Your task to perform on an android device: Go to CNN.com Image 0: 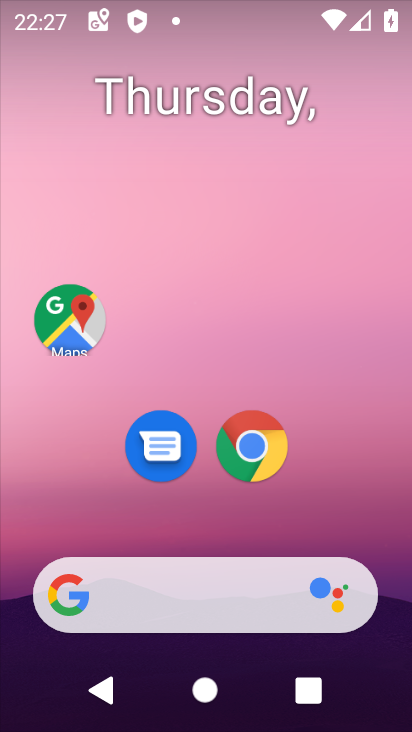
Step 0: click (244, 457)
Your task to perform on an android device: Go to CNN.com Image 1: 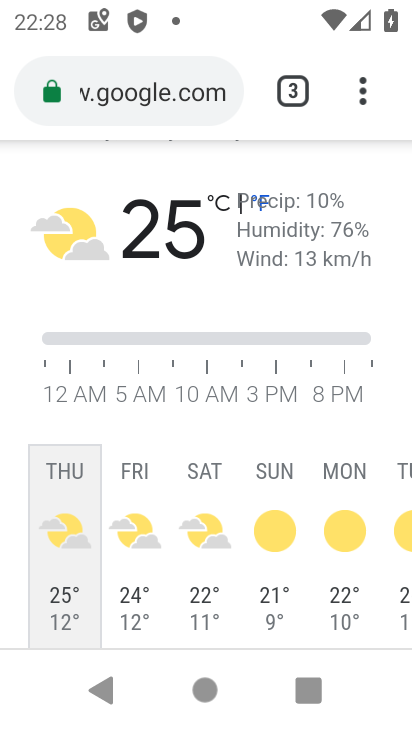
Step 1: click (149, 92)
Your task to perform on an android device: Go to CNN.com Image 2: 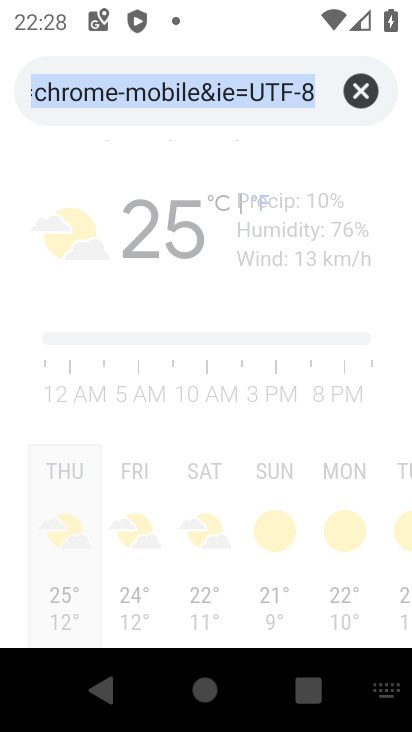
Step 2: click (357, 97)
Your task to perform on an android device: Go to CNN.com Image 3: 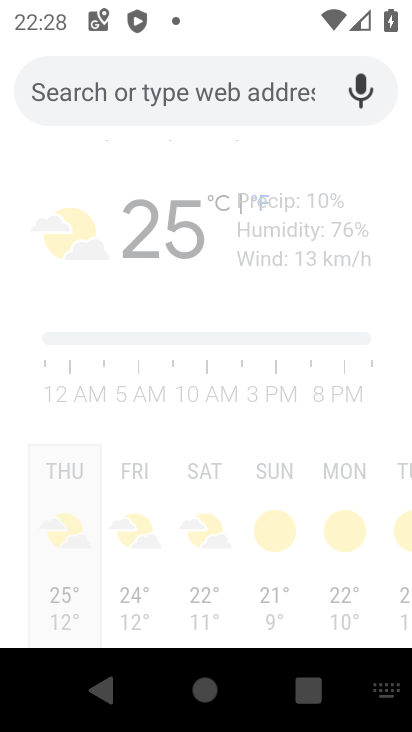
Step 3: click (358, 84)
Your task to perform on an android device: Go to CNN.com Image 4: 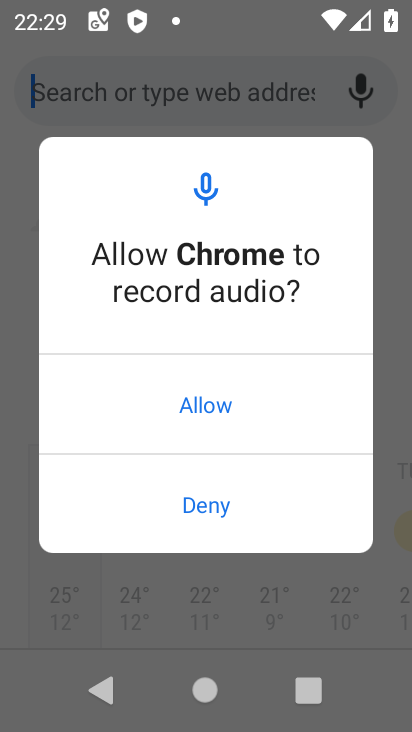
Step 4: type "CNN.com"
Your task to perform on an android device: Go to CNN.com Image 5: 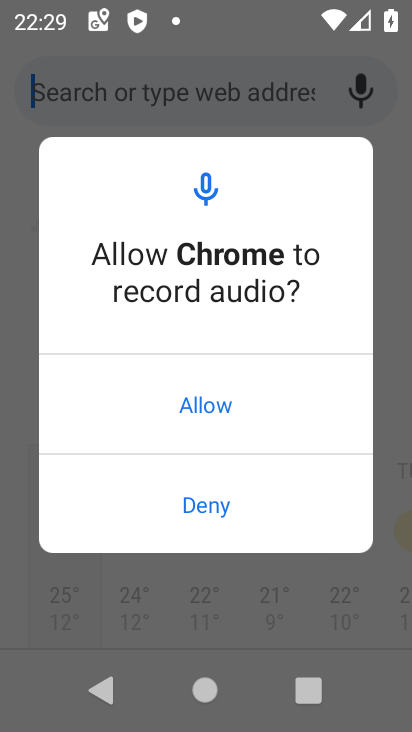
Step 5: click (194, 511)
Your task to perform on an android device: Go to CNN.com Image 6: 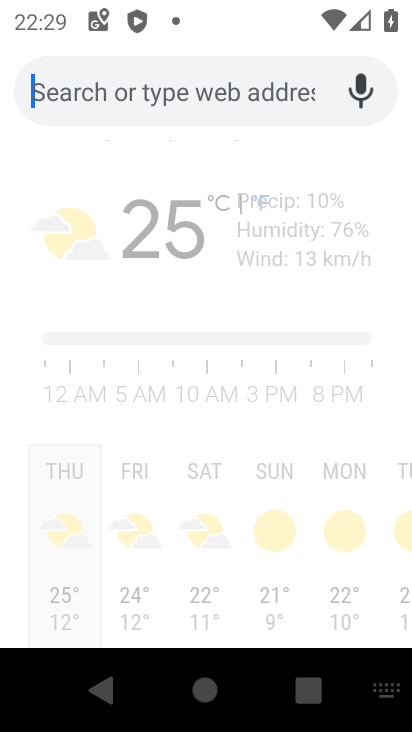
Step 6: click (311, 531)
Your task to perform on an android device: Go to CNN.com Image 7: 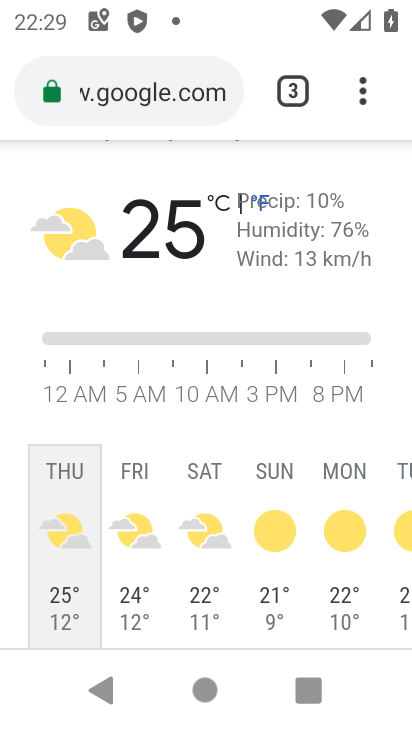
Step 7: click (133, 90)
Your task to perform on an android device: Go to CNN.com Image 8: 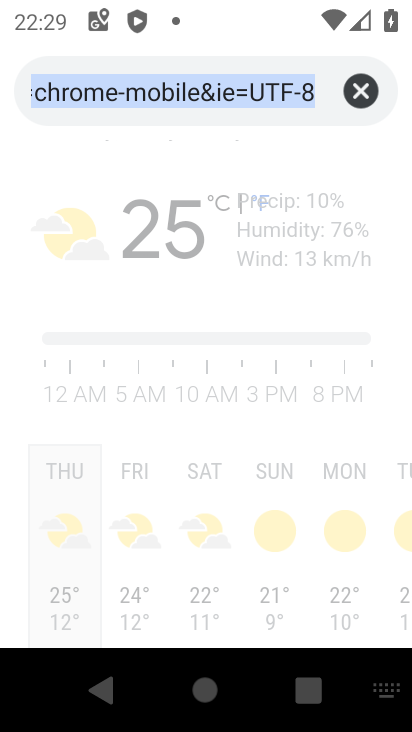
Step 8: click (175, 90)
Your task to perform on an android device: Go to CNN.com Image 9: 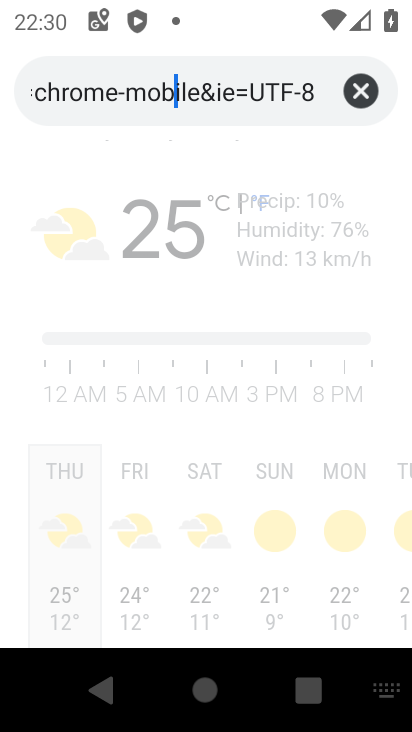
Step 9: click (348, 101)
Your task to perform on an android device: Go to CNN.com Image 10: 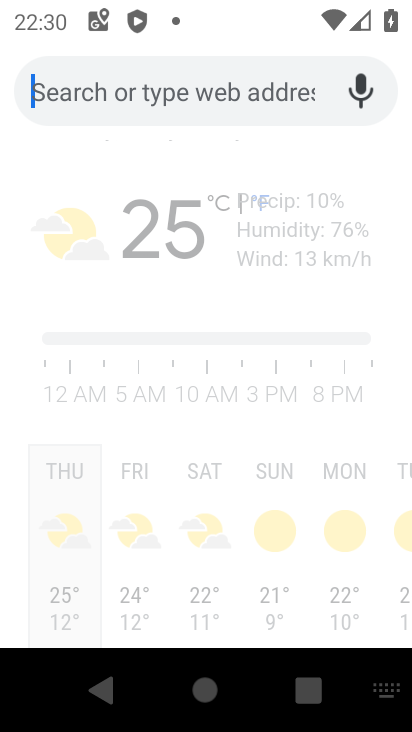
Step 10: type "CNN.com"
Your task to perform on an android device: Go to CNN.com Image 11: 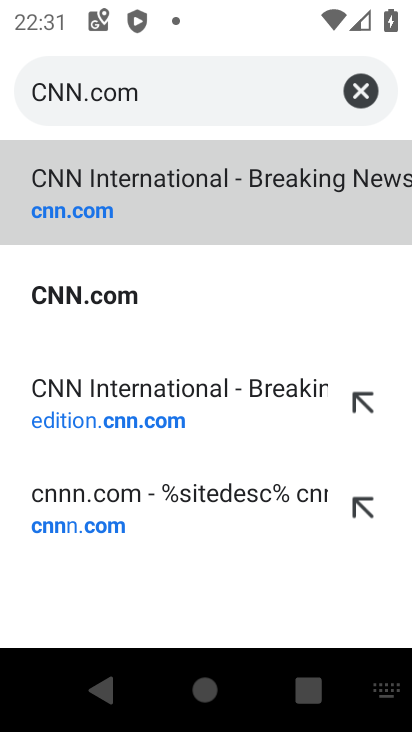
Step 11: click (152, 218)
Your task to perform on an android device: Go to CNN.com Image 12: 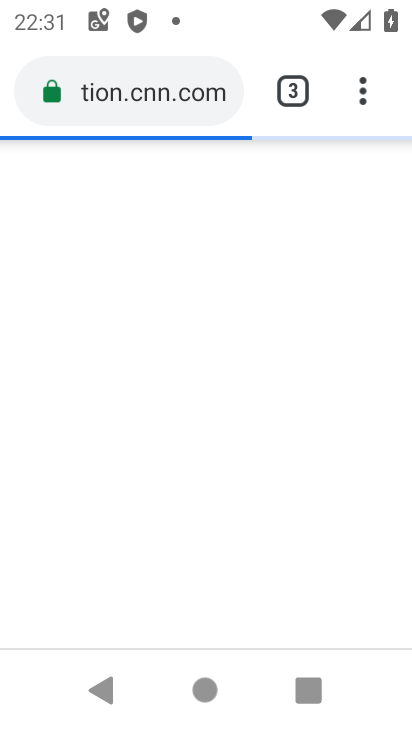
Step 12: task complete